Your task to perform on an android device: What's the weather like in Johannesburg? Image 0: 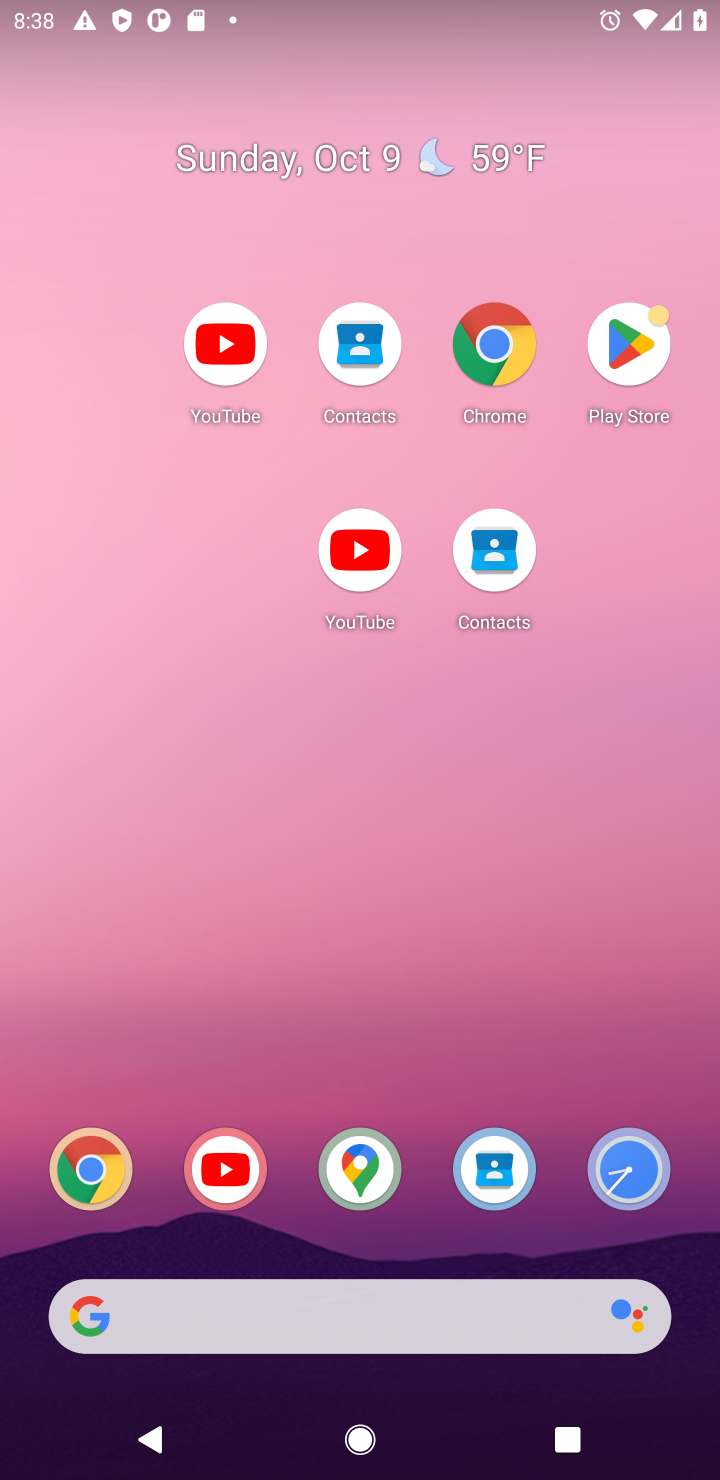
Step 0: drag from (416, 1267) to (411, 252)
Your task to perform on an android device: What's the weather like in Johannesburg? Image 1: 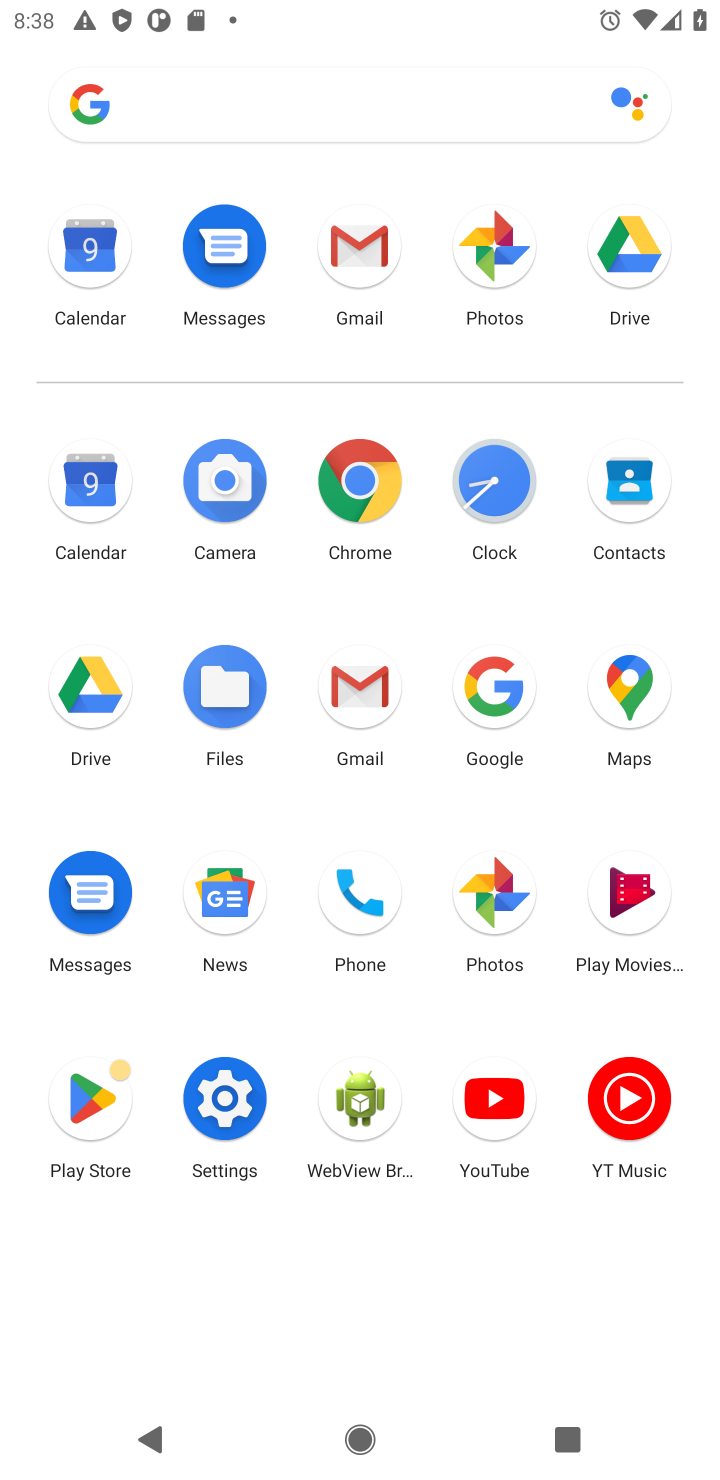
Step 1: click (364, 481)
Your task to perform on an android device: What's the weather like in Johannesburg? Image 2: 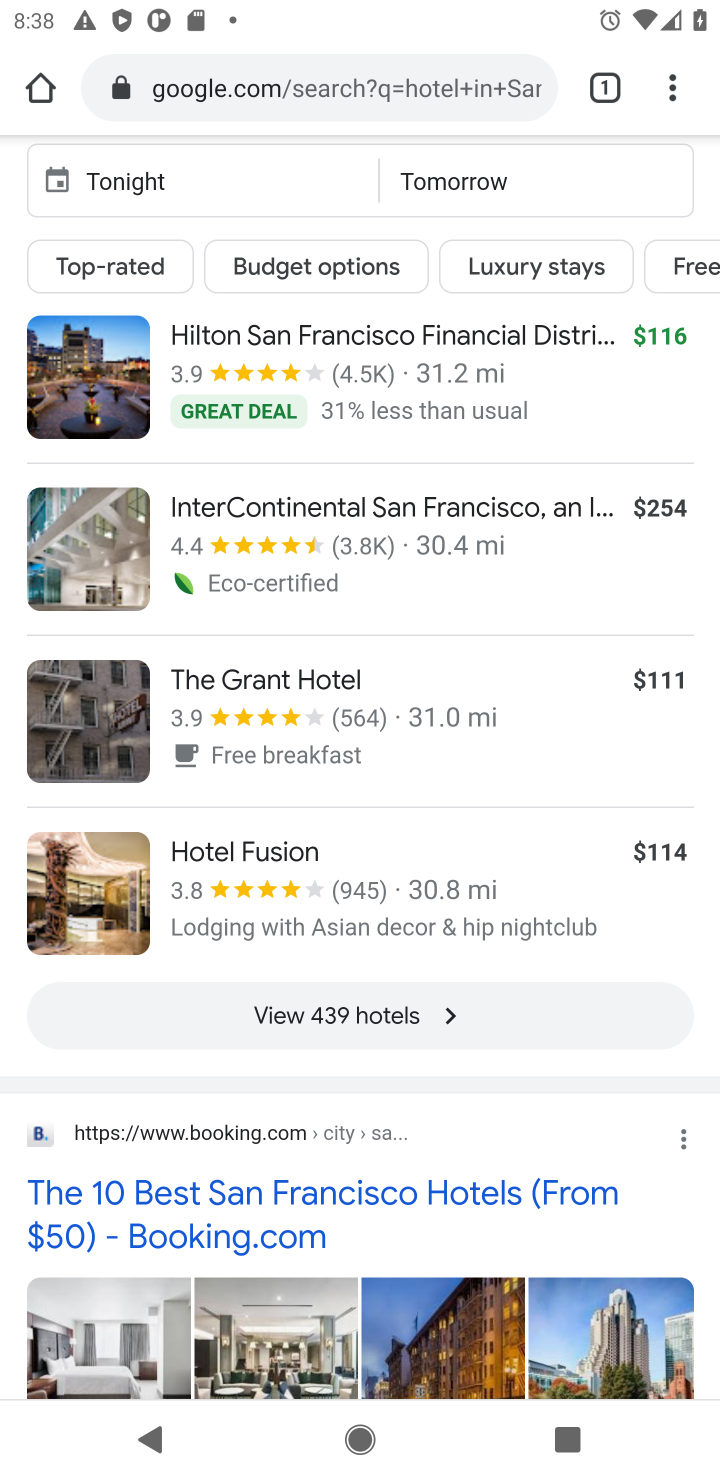
Step 2: click (370, 76)
Your task to perform on an android device: What's the weather like in Johannesburg? Image 3: 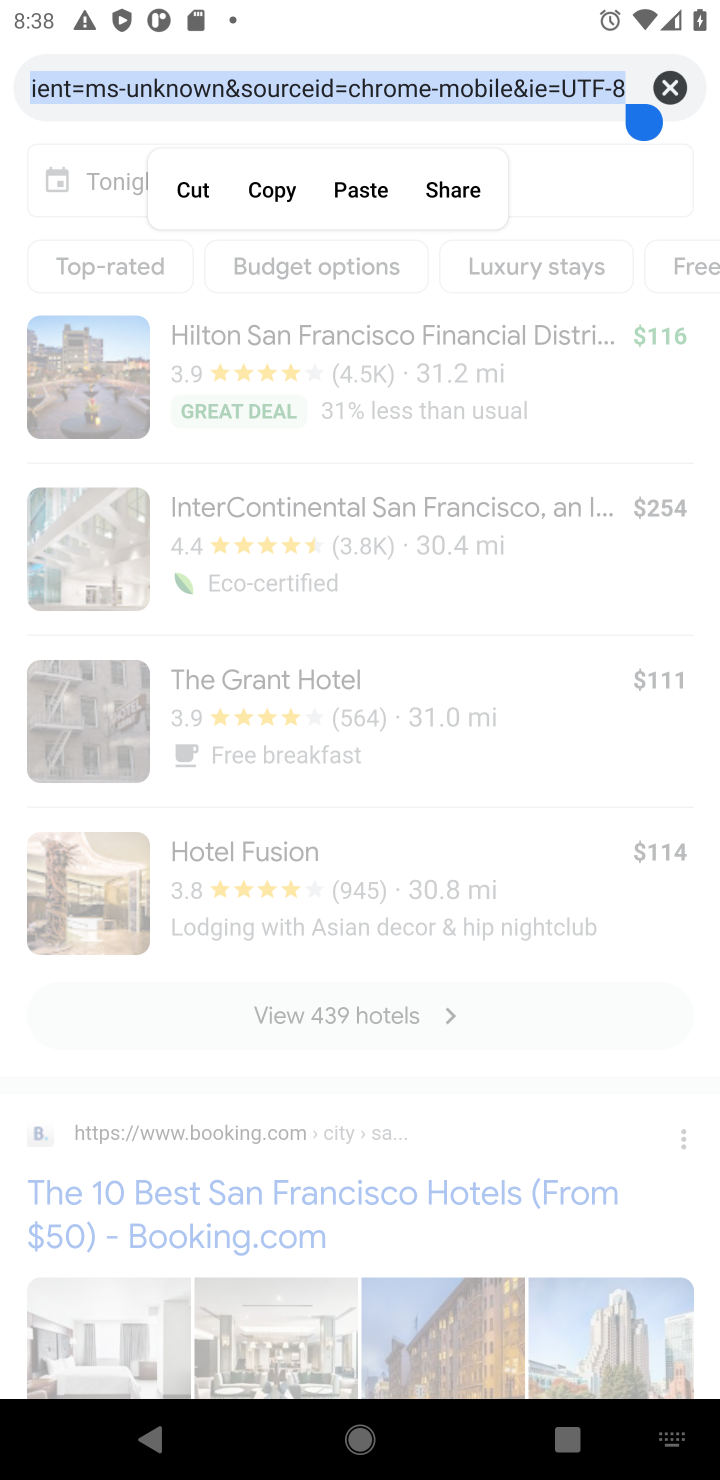
Step 3: type "what's the weather like in"
Your task to perform on an android device: What's the weather like in Johannesburg? Image 4: 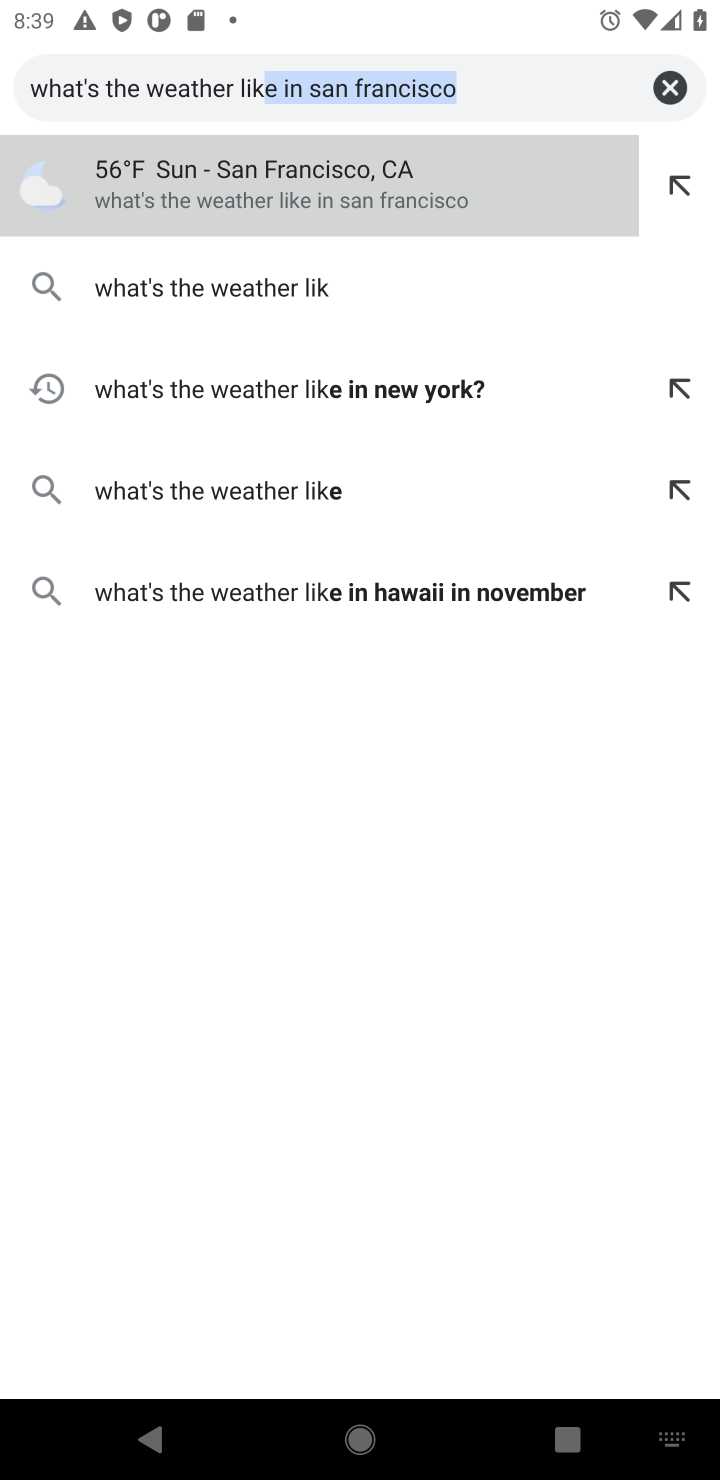
Step 4: type "e in Johannesburg?"
Your task to perform on an android device: What's the weather like in Johannesburg? Image 5: 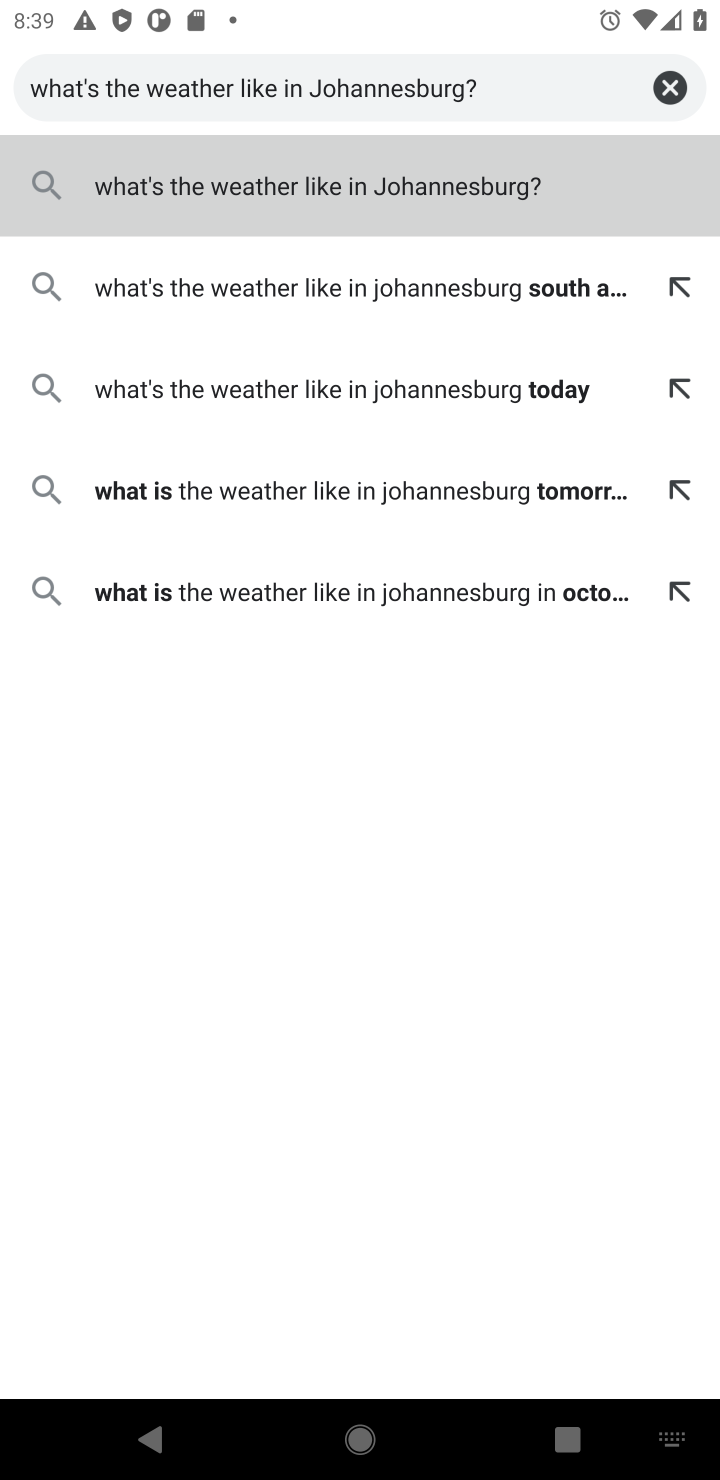
Step 5: press enter
Your task to perform on an android device: What's the weather like in Johannesburg? Image 6: 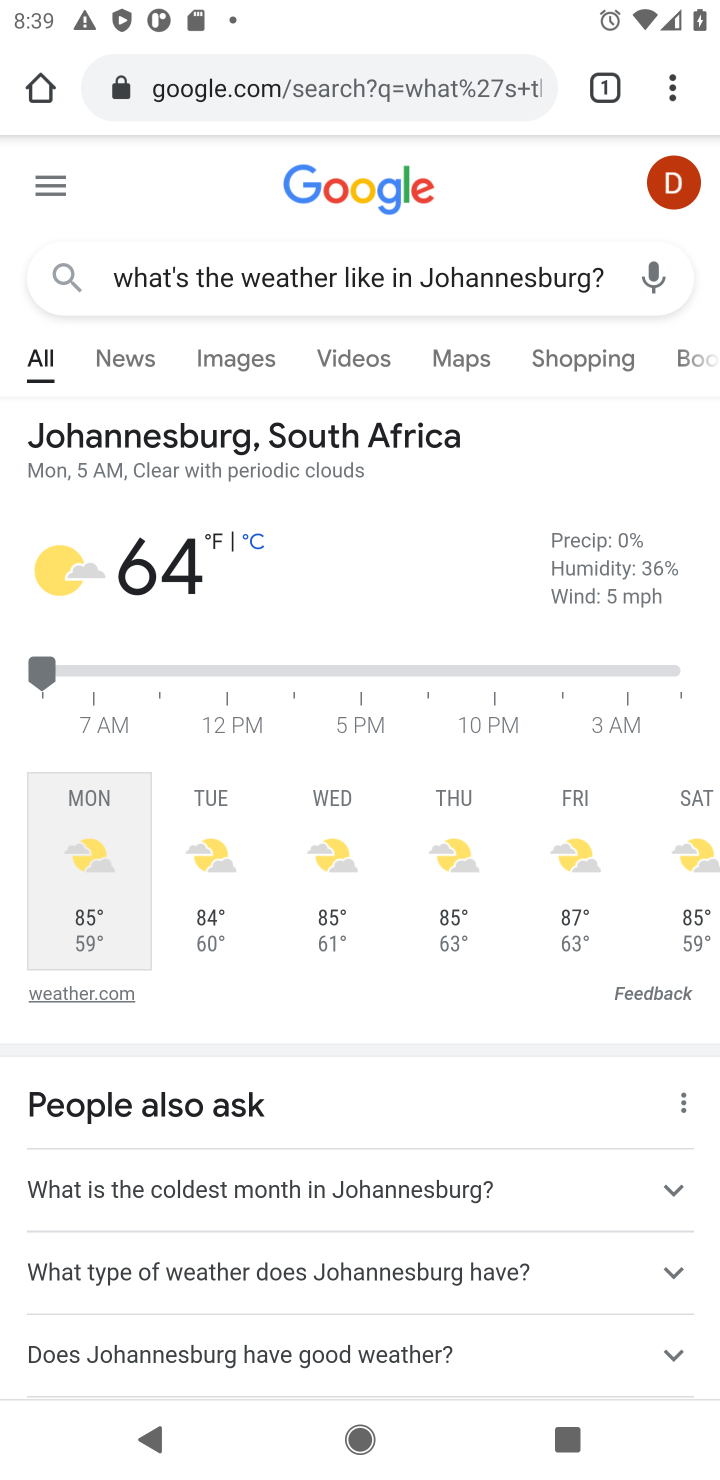
Step 6: task complete